Your task to perform on an android device: turn off translation in the chrome app Image 0: 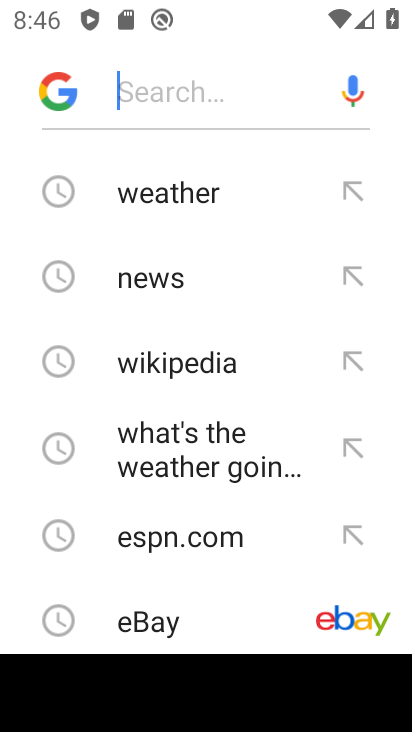
Step 0: press back button
Your task to perform on an android device: turn off translation in the chrome app Image 1: 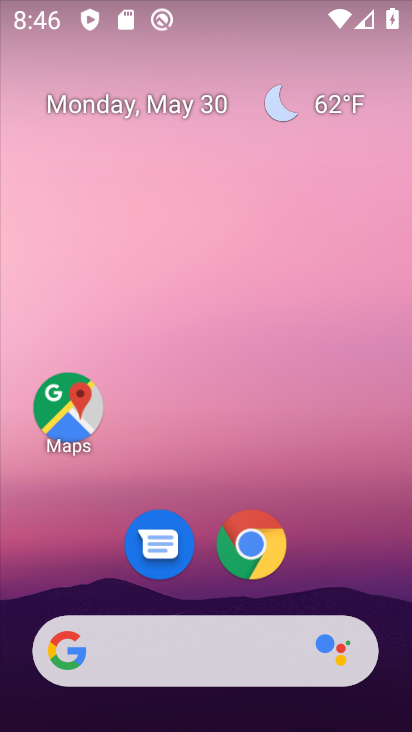
Step 1: click (251, 546)
Your task to perform on an android device: turn off translation in the chrome app Image 2: 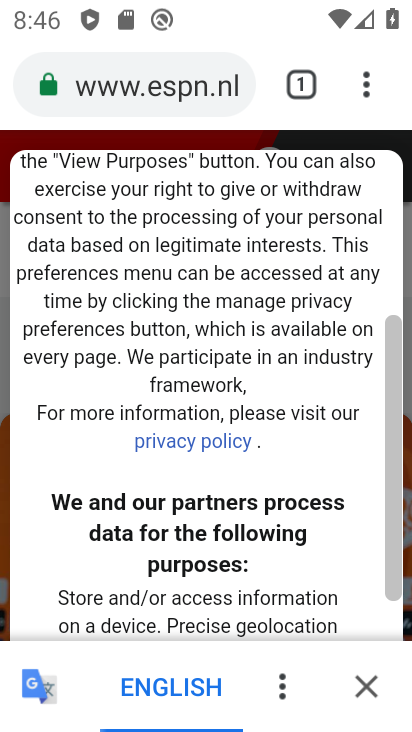
Step 2: click (369, 83)
Your task to perform on an android device: turn off translation in the chrome app Image 3: 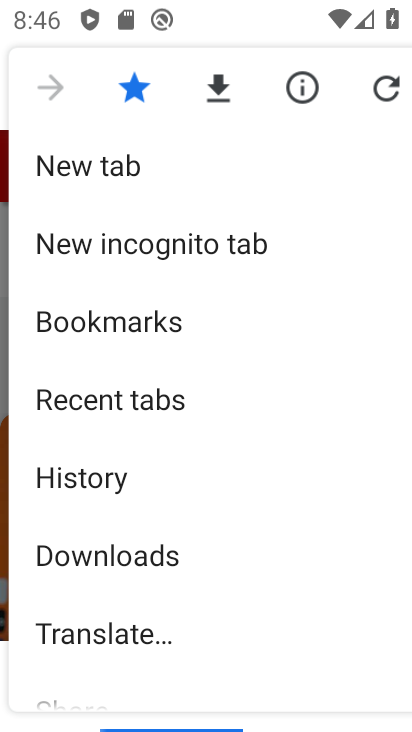
Step 3: drag from (162, 488) to (182, 364)
Your task to perform on an android device: turn off translation in the chrome app Image 4: 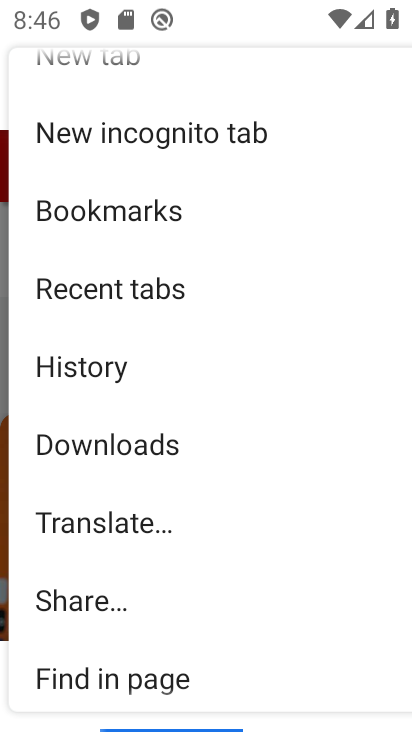
Step 4: drag from (156, 483) to (131, 386)
Your task to perform on an android device: turn off translation in the chrome app Image 5: 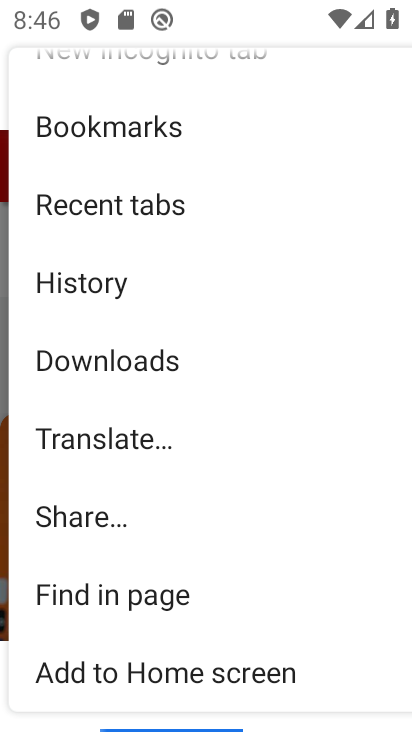
Step 5: drag from (130, 506) to (147, 405)
Your task to perform on an android device: turn off translation in the chrome app Image 6: 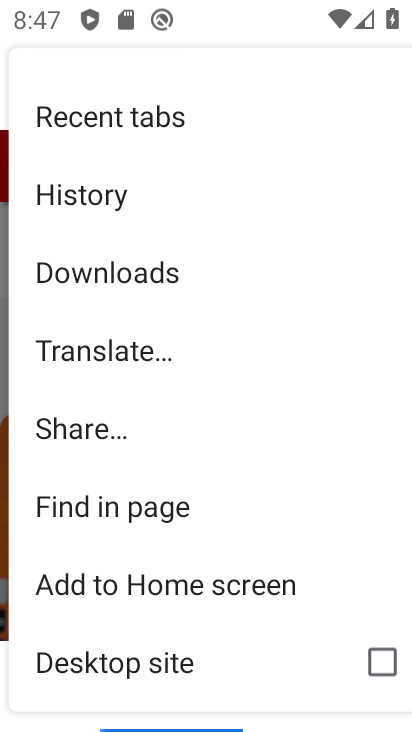
Step 6: drag from (159, 540) to (183, 441)
Your task to perform on an android device: turn off translation in the chrome app Image 7: 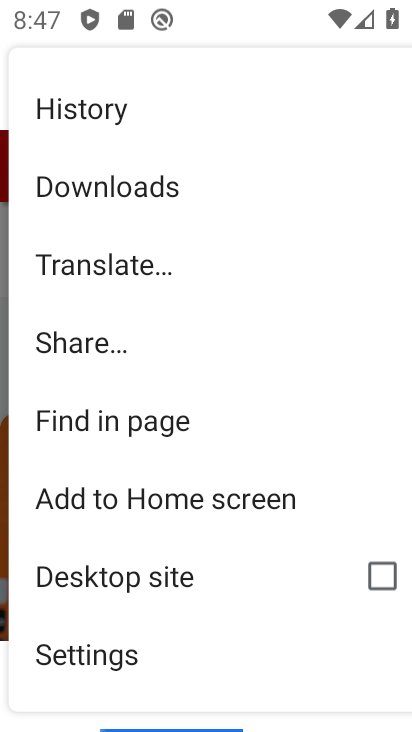
Step 7: click (94, 654)
Your task to perform on an android device: turn off translation in the chrome app Image 8: 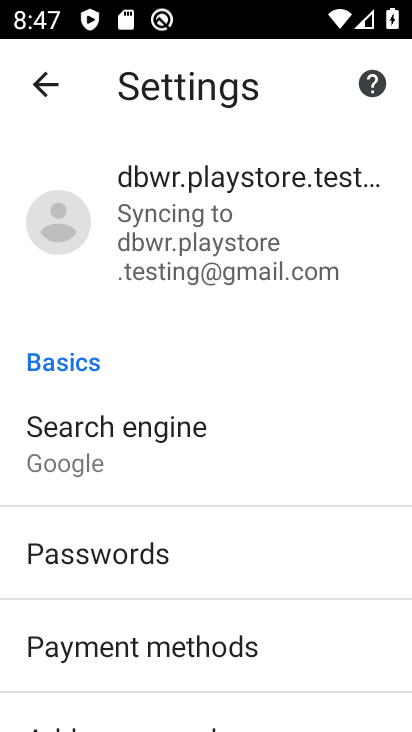
Step 8: drag from (198, 569) to (196, 449)
Your task to perform on an android device: turn off translation in the chrome app Image 9: 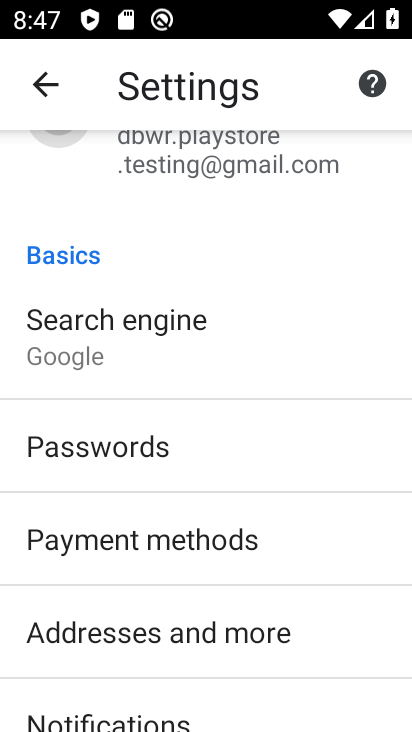
Step 9: drag from (178, 554) to (240, 460)
Your task to perform on an android device: turn off translation in the chrome app Image 10: 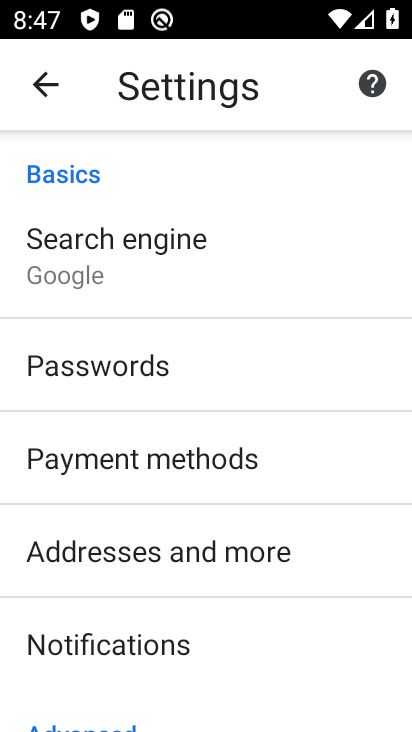
Step 10: drag from (182, 582) to (183, 492)
Your task to perform on an android device: turn off translation in the chrome app Image 11: 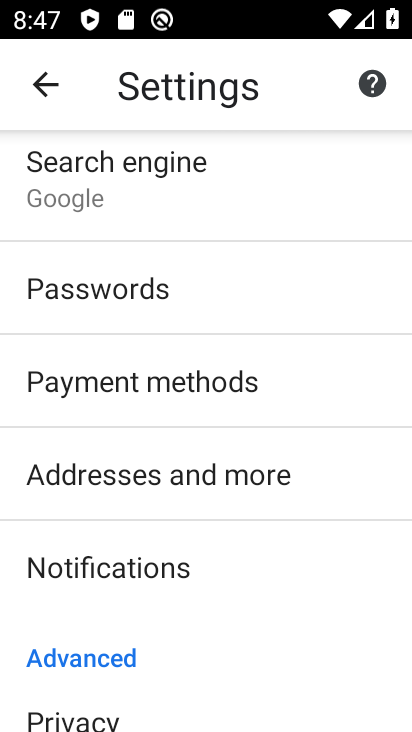
Step 11: drag from (207, 571) to (208, 483)
Your task to perform on an android device: turn off translation in the chrome app Image 12: 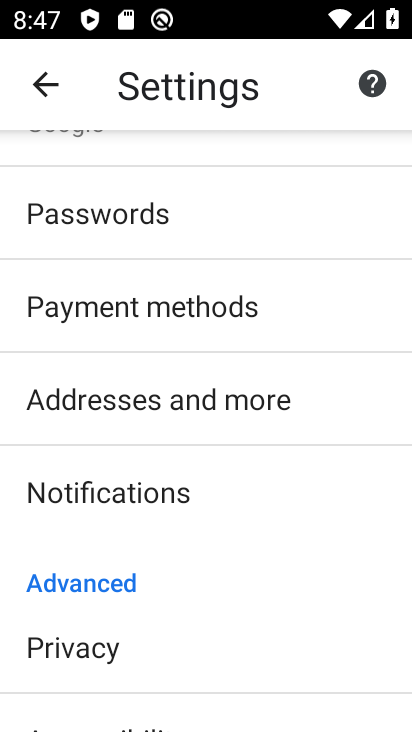
Step 12: drag from (171, 627) to (135, 505)
Your task to perform on an android device: turn off translation in the chrome app Image 13: 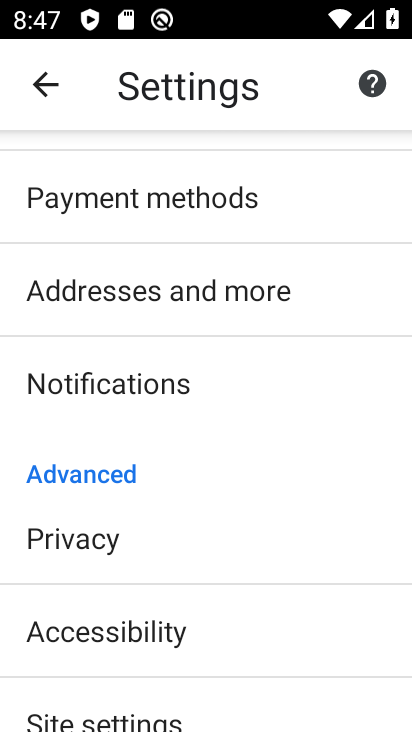
Step 13: drag from (175, 657) to (178, 550)
Your task to perform on an android device: turn off translation in the chrome app Image 14: 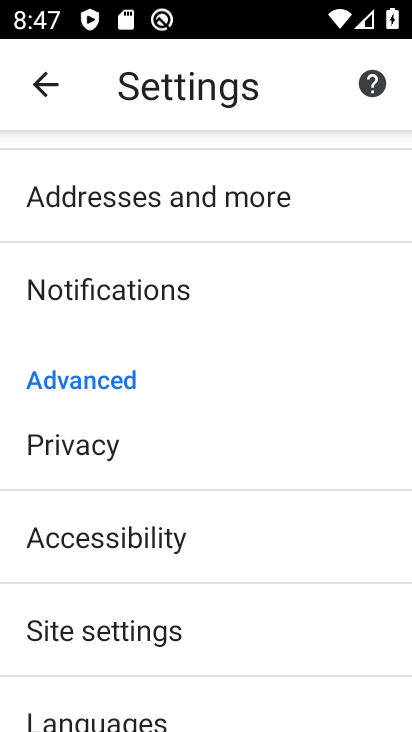
Step 14: drag from (184, 652) to (174, 552)
Your task to perform on an android device: turn off translation in the chrome app Image 15: 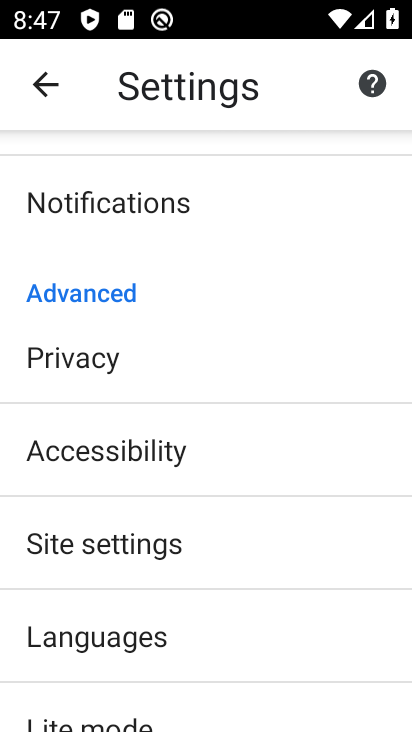
Step 15: click (137, 627)
Your task to perform on an android device: turn off translation in the chrome app Image 16: 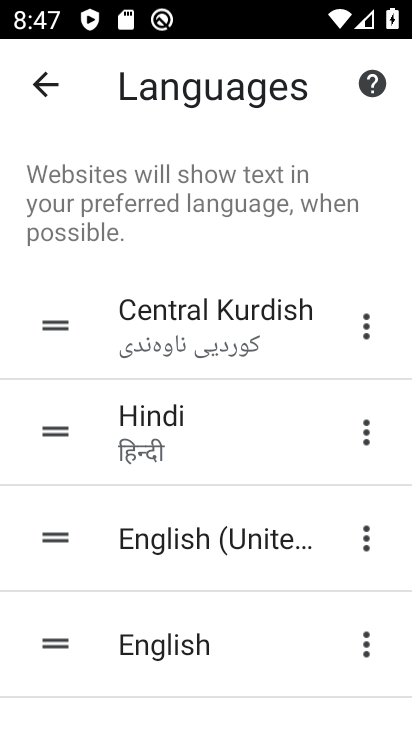
Step 16: drag from (266, 631) to (222, 439)
Your task to perform on an android device: turn off translation in the chrome app Image 17: 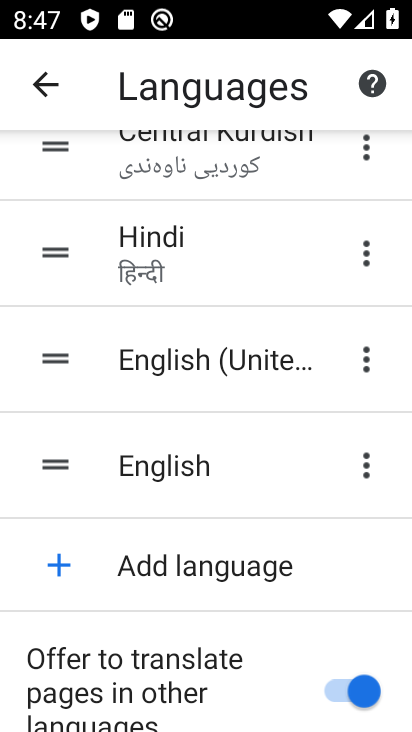
Step 17: drag from (224, 647) to (219, 413)
Your task to perform on an android device: turn off translation in the chrome app Image 18: 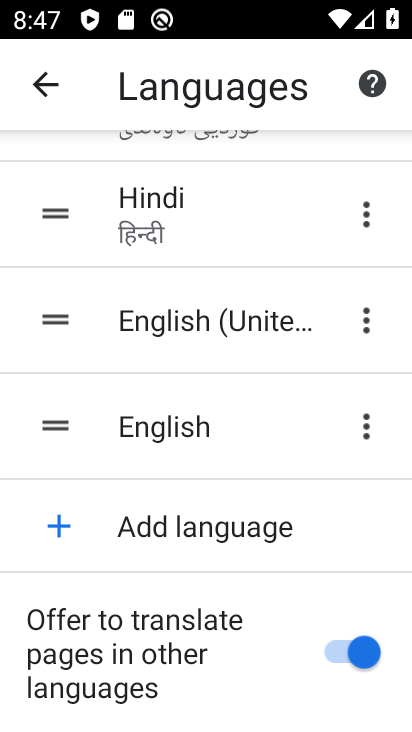
Step 18: click (341, 655)
Your task to perform on an android device: turn off translation in the chrome app Image 19: 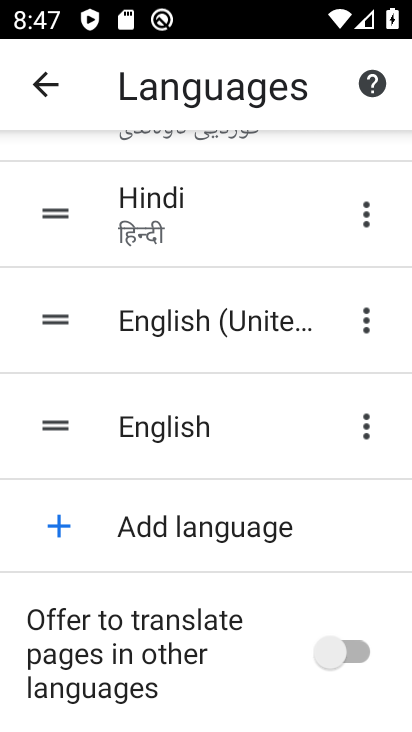
Step 19: task complete